Your task to perform on an android device: Open CNN.com Image 0: 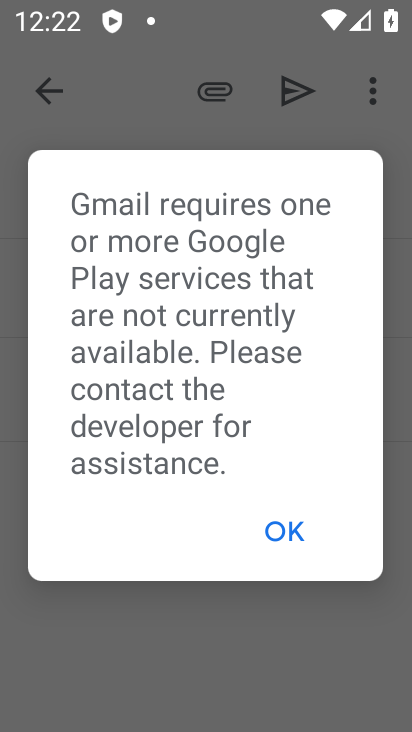
Step 0: press home button
Your task to perform on an android device: Open CNN.com Image 1: 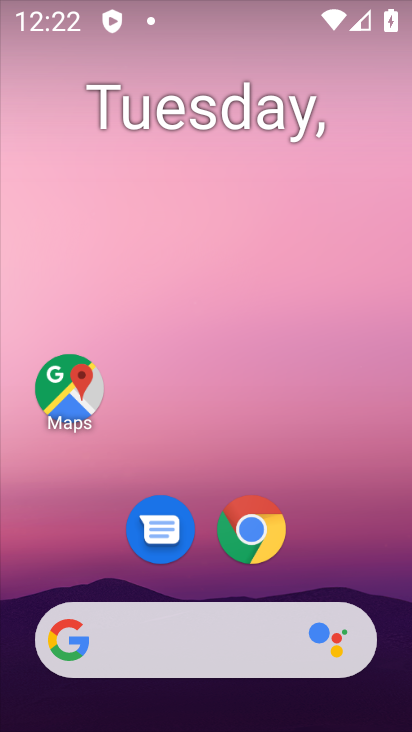
Step 1: drag from (308, 545) to (270, 5)
Your task to perform on an android device: Open CNN.com Image 2: 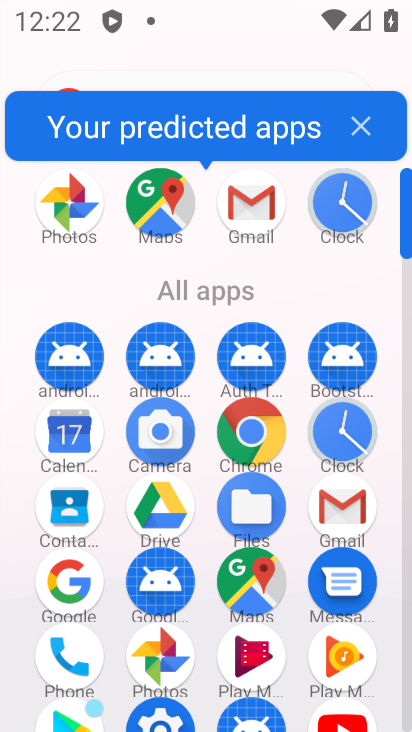
Step 2: click (258, 440)
Your task to perform on an android device: Open CNN.com Image 3: 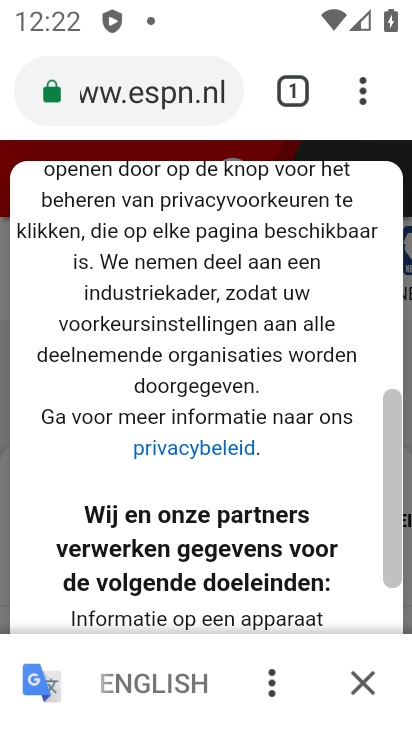
Step 3: click (195, 80)
Your task to perform on an android device: Open CNN.com Image 4: 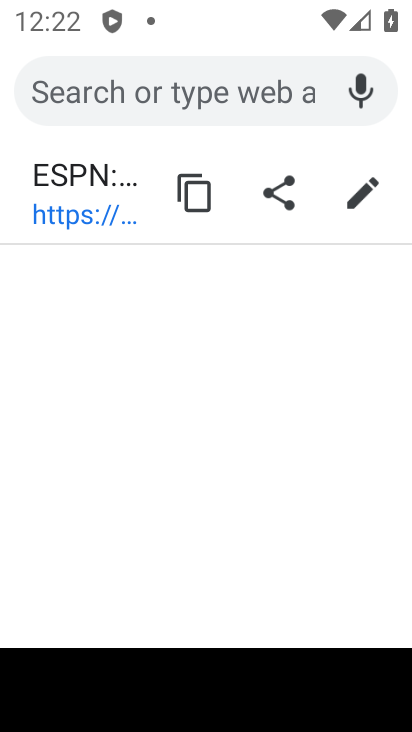
Step 4: type "cnn"
Your task to perform on an android device: Open CNN.com Image 5: 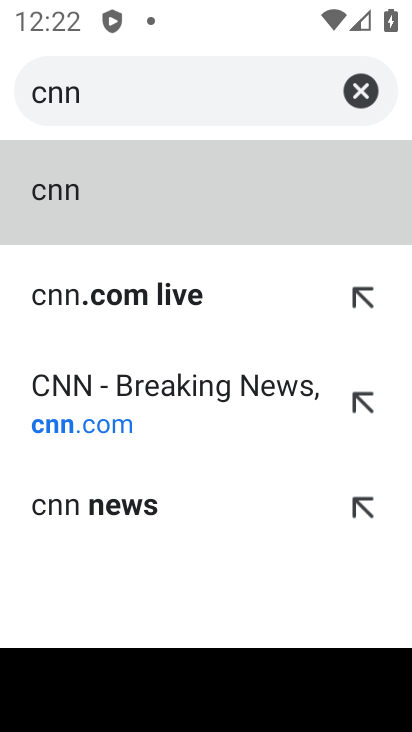
Step 5: click (115, 187)
Your task to perform on an android device: Open CNN.com Image 6: 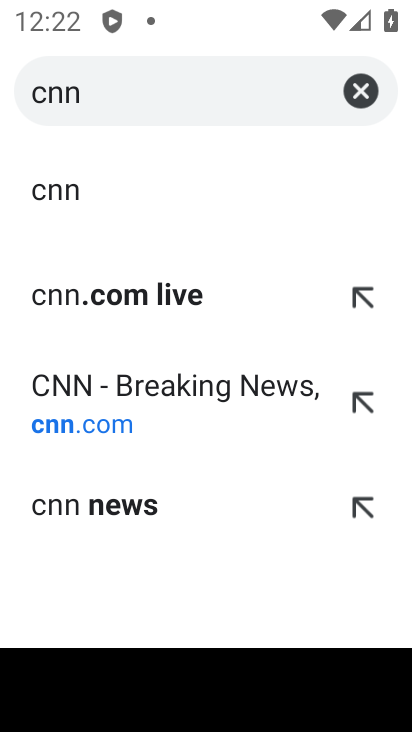
Step 6: click (101, 407)
Your task to perform on an android device: Open CNN.com Image 7: 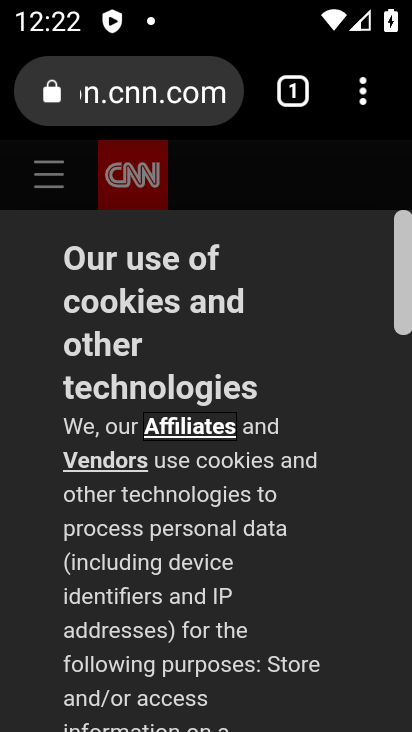
Step 7: task complete